Your task to perform on an android device: change your default location settings in chrome Image 0: 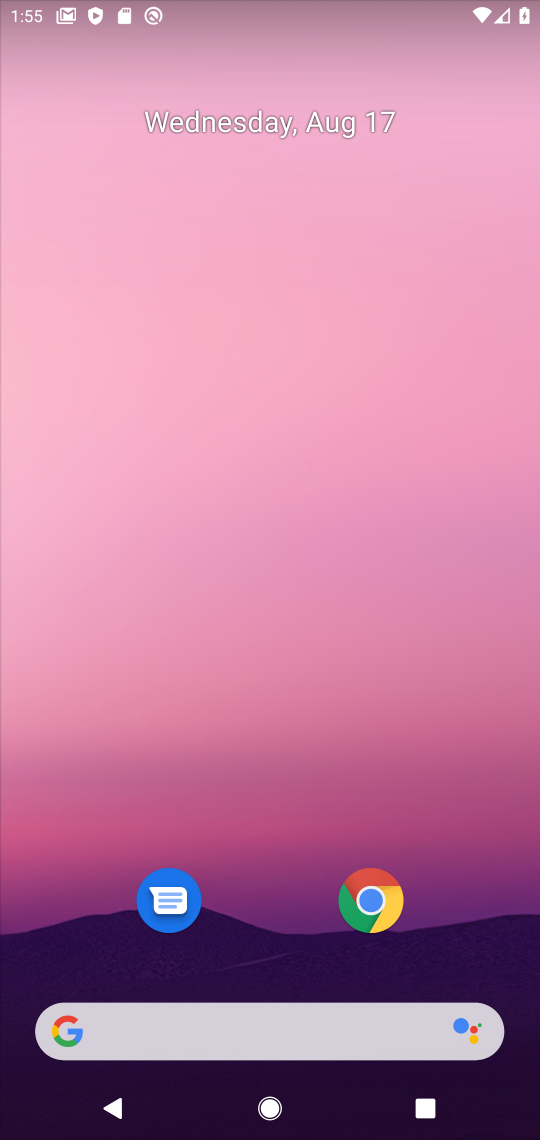
Step 0: press home button
Your task to perform on an android device: change your default location settings in chrome Image 1: 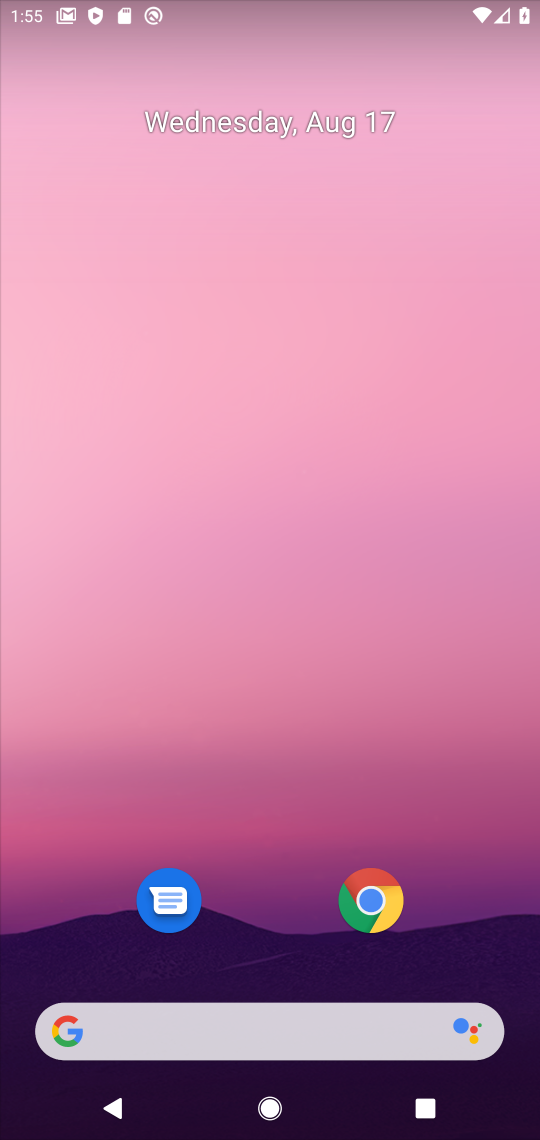
Step 1: click (397, 199)
Your task to perform on an android device: change your default location settings in chrome Image 2: 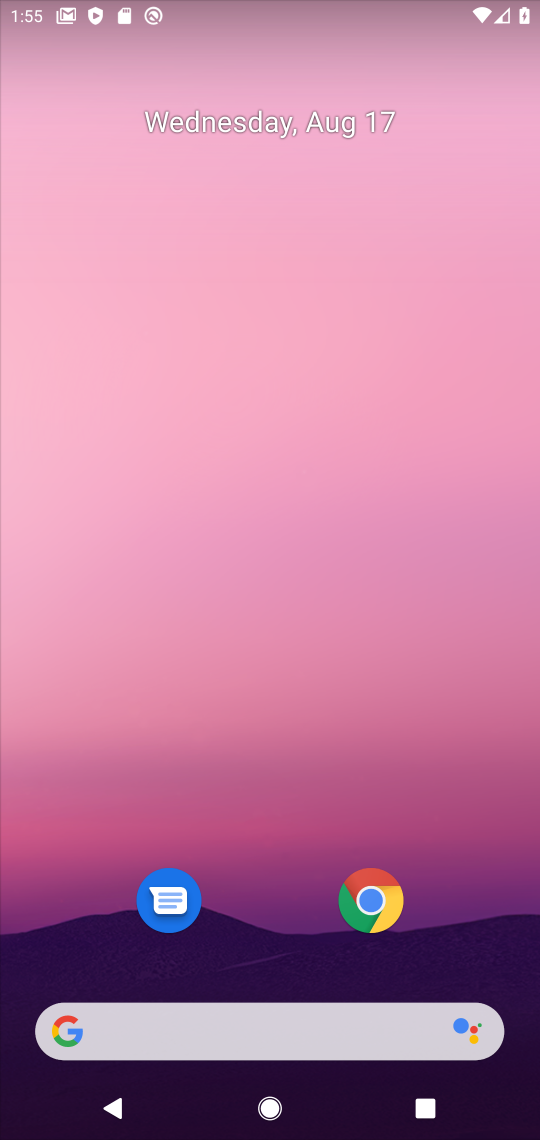
Step 2: click (366, 905)
Your task to perform on an android device: change your default location settings in chrome Image 3: 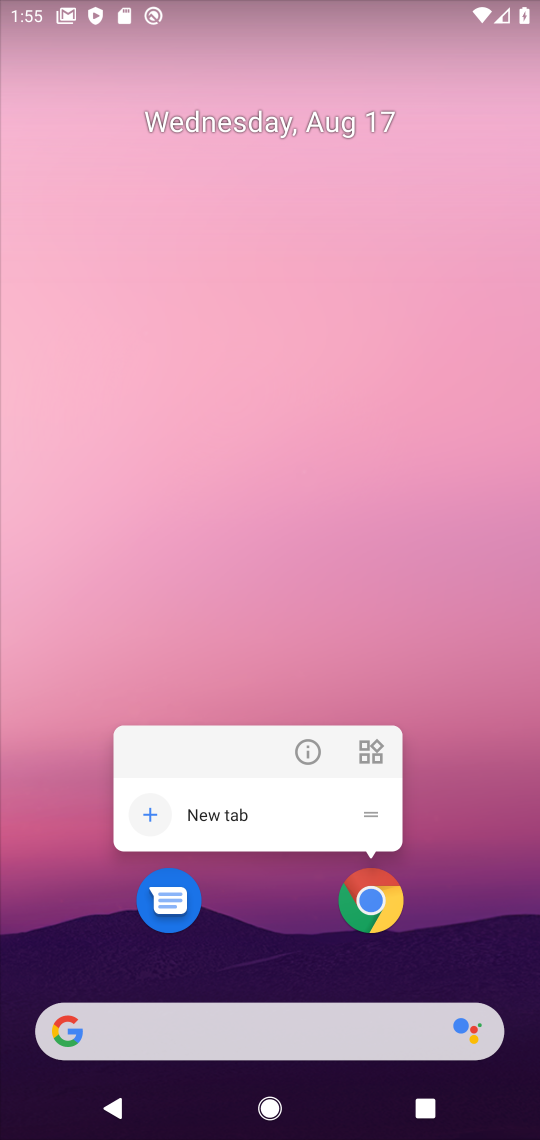
Step 3: click (380, 905)
Your task to perform on an android device: change your default location settings in chrome Image 4: 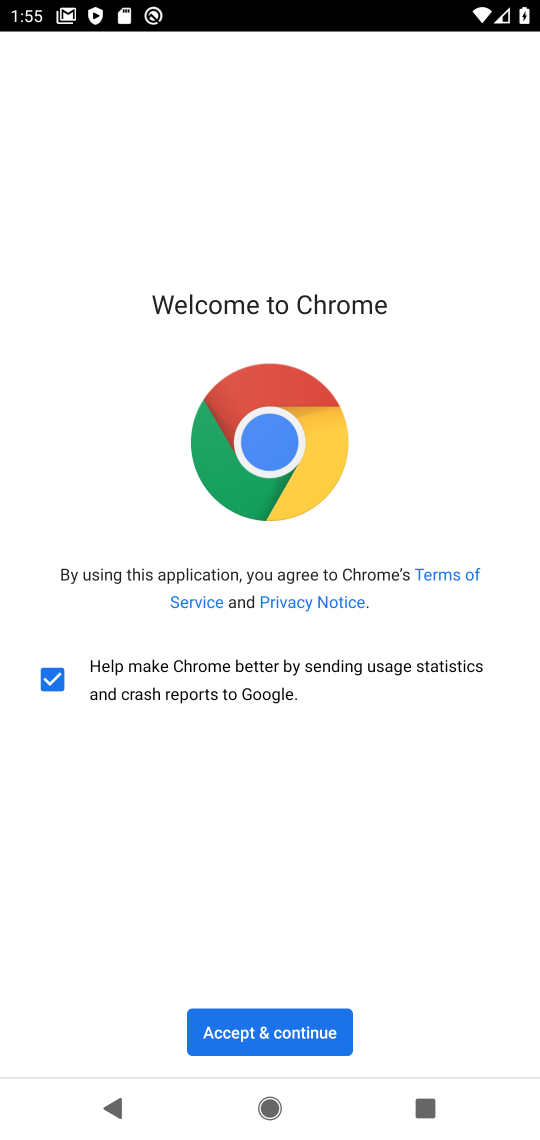
Step 4: click (271, 1037)
Your task to perform on an android device: change your default location settings in chrome Image 5: 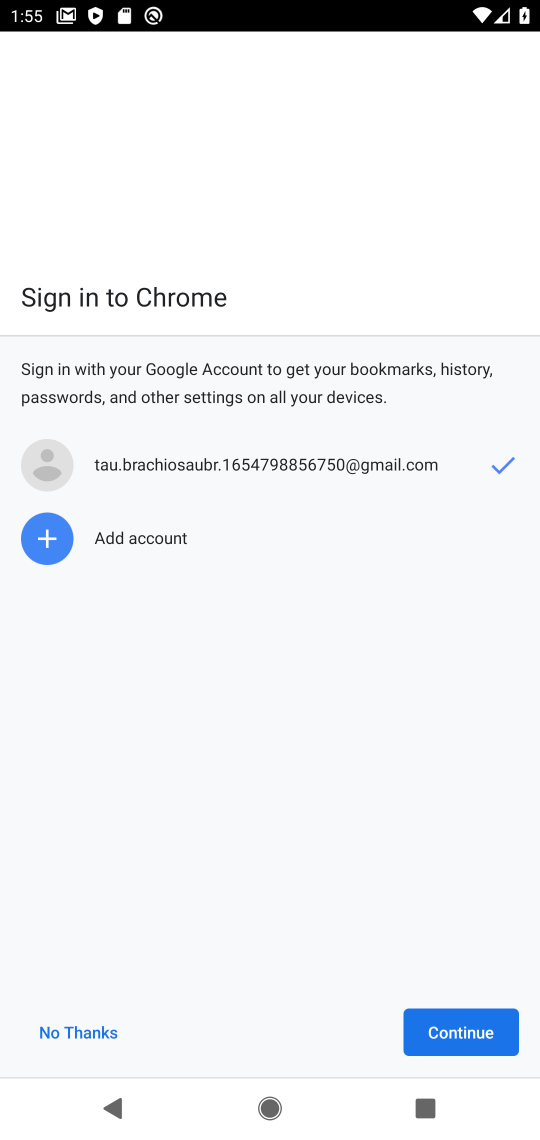
Step 5: click (428, 1047)
Your task to perform on an android device: change your default location settings in chrome Image 6: 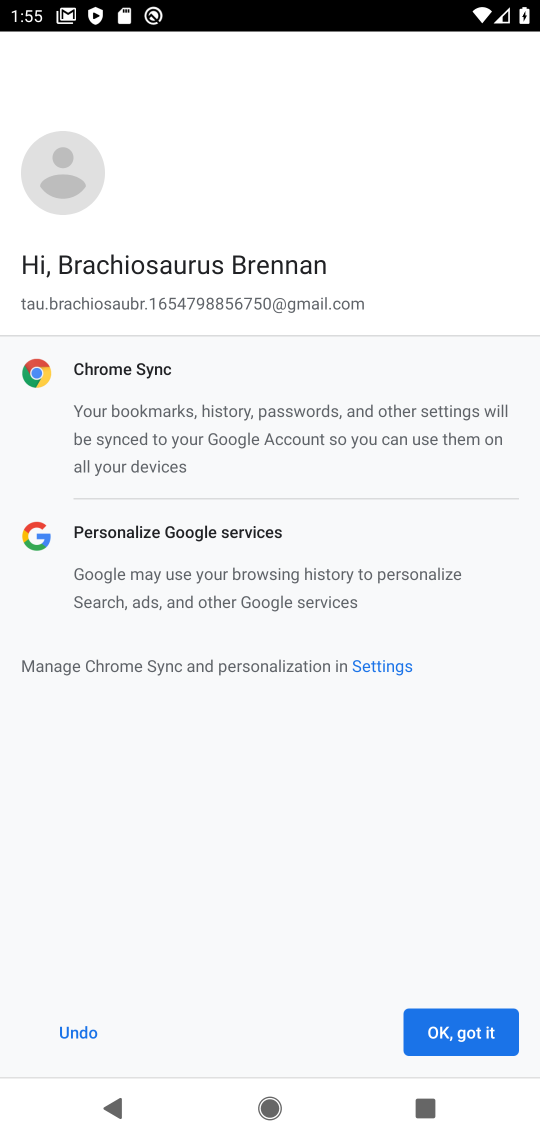
Step 6: click (443, 1040)
Your task to perform on an android device: change your default location settings in chrome Image 7: 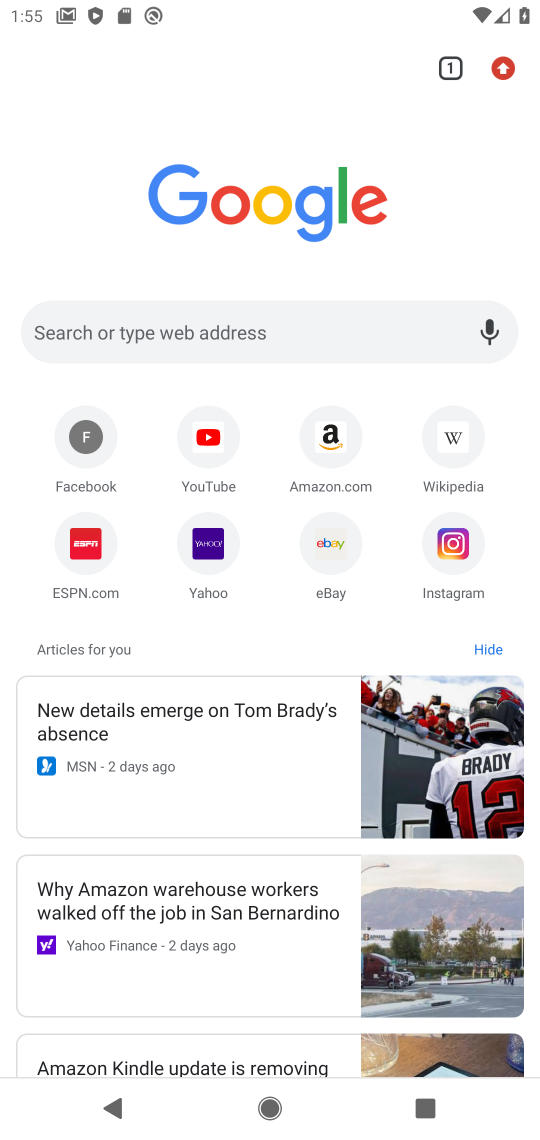
Step 7: drag from (498, 78) to (360, 662)
Your task to perform on an android device: change your default location settings in chrome Image 8: 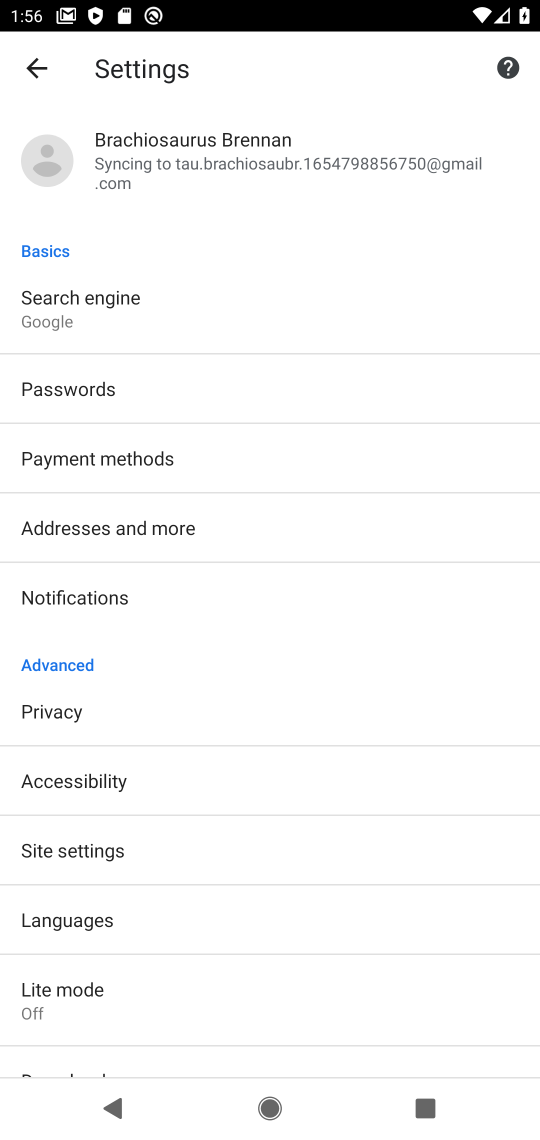
Step 8: click (115, 849)
Your task to perform on an android device: change your default location settings in chrome Image 9: 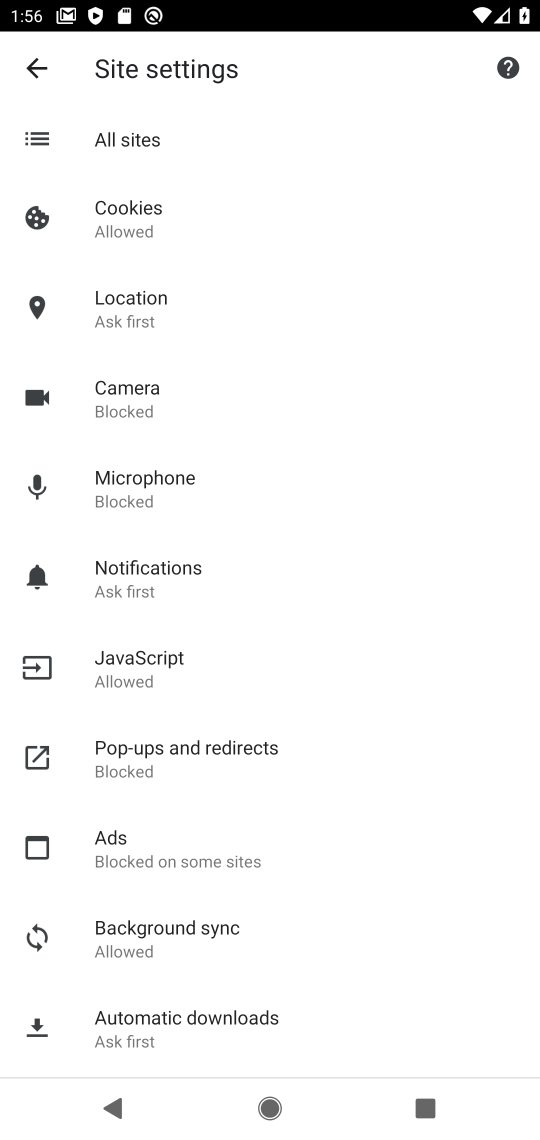
Step 9: click (143, 313)
Your task to perform on an android device: change your default location settings in chrome Image 10: 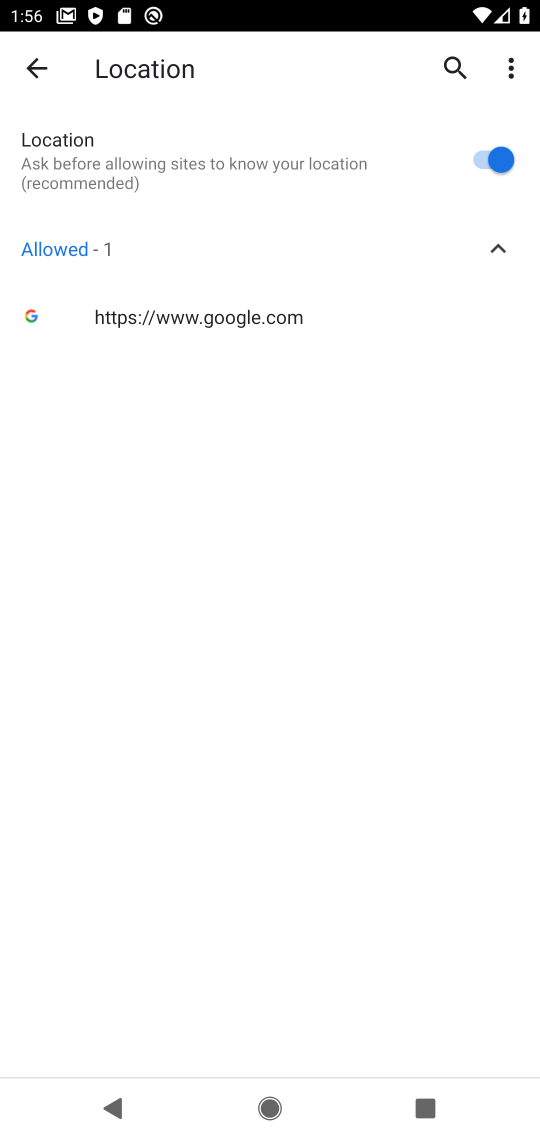
Step 10: click (487, 160)
Your task to perform on an android device: change your default location settings in chrome Image 11: 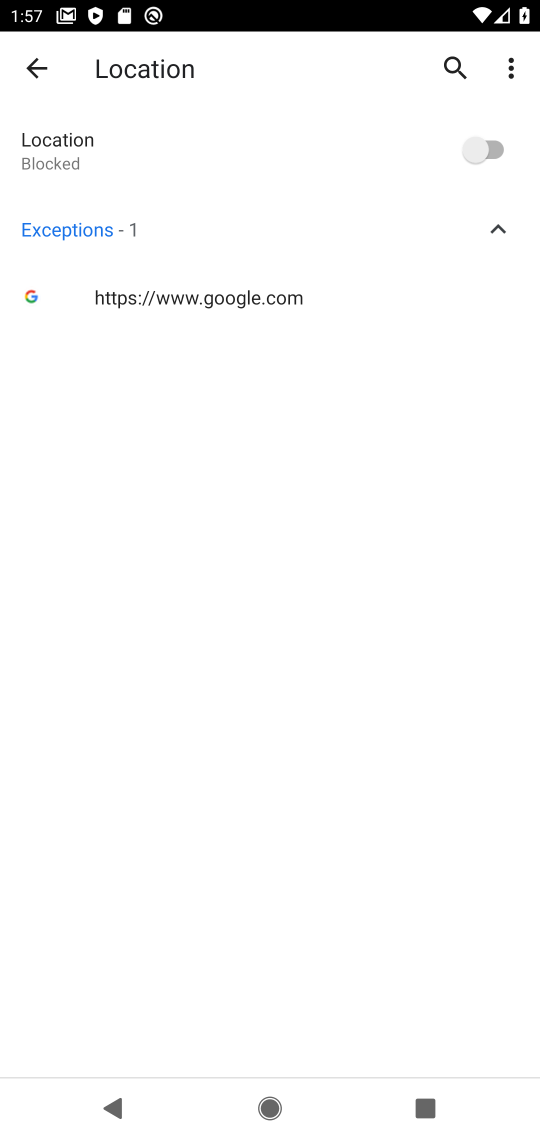
Step 11: task complete